Your task to perform on an android device: turn pop-ups off in chrome Image 0: 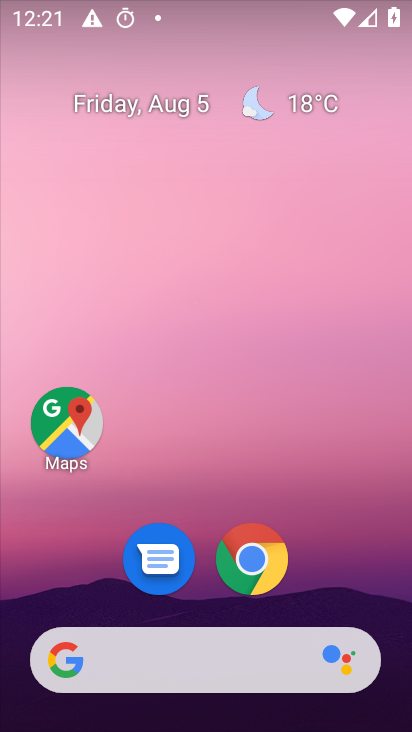
Step 0: click (266, 569)
Your task to perform on an android device: turn pop-ups off in chrome Image 1: 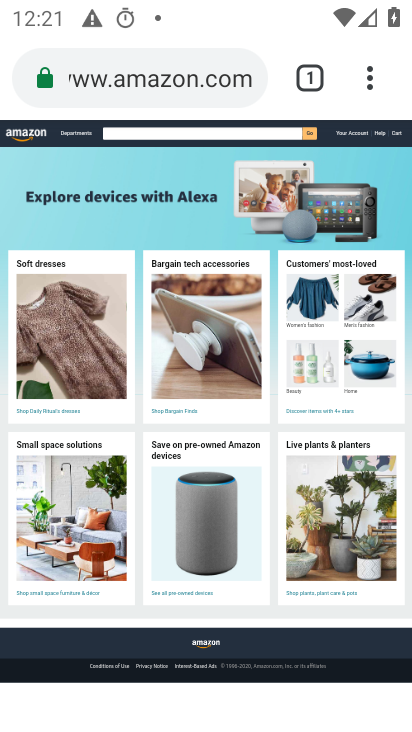
Step 1: click (376, 62)
Your task to perform on an android device: turn pop-ups off in chrome Image 2: 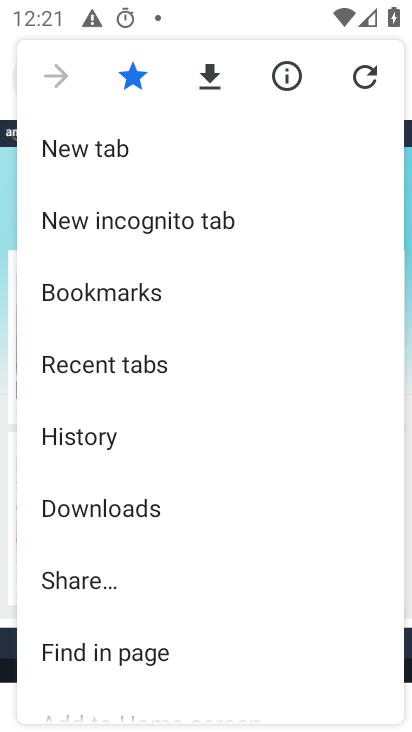
Step 2: drag from (363, 663) to (398, 382)
Your task to perform on an android device: turn pop-ups off in chrome Image 3: 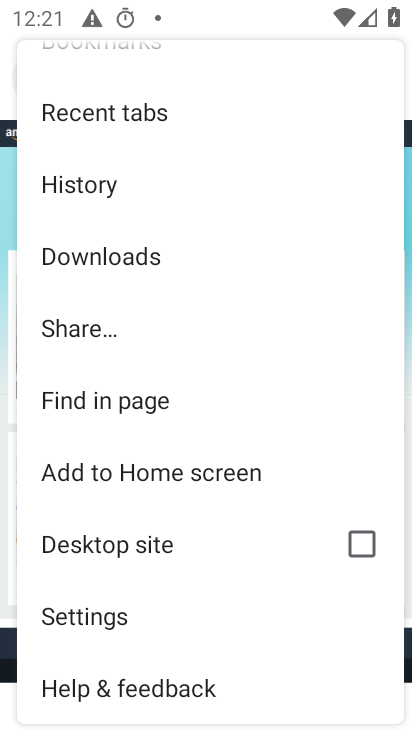
Step 3: click (113, 623)
Your task to perform on an android device: turn pop-ups off in chrome Image 4: 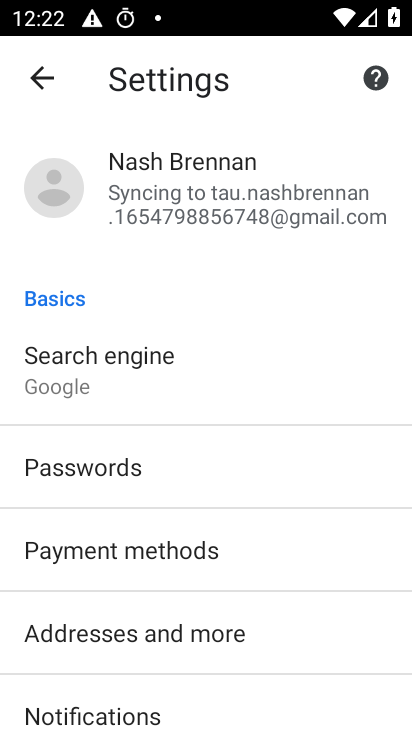
Step 4: drag from (327, 659) to (388, 413)
Your task to perform on an android device: turn pop-ups off in chrome Image 5: 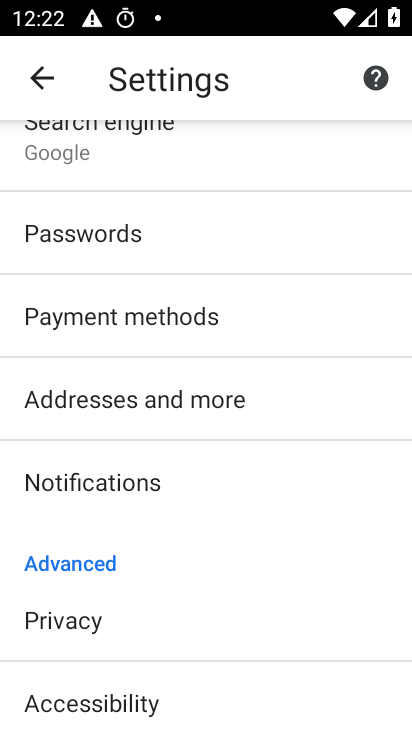
Step 5: drag from (334, 645) to (384, 379)
Your task to perform on an android device: turn pop-ups off in chrome Image 6: 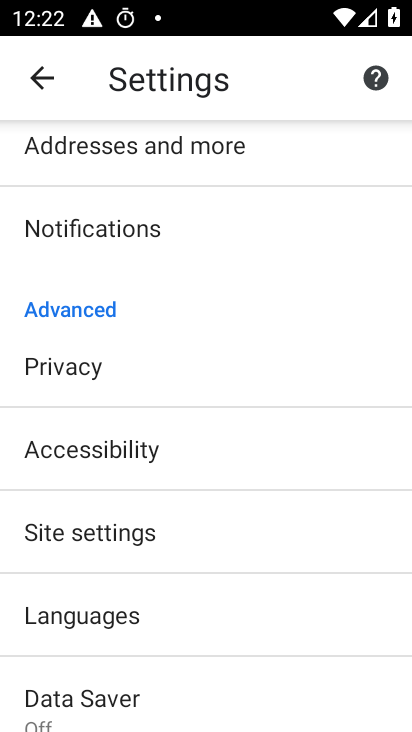
Step 6: click (99, 525)
Your task to perform on an android device: turn pop-ups off in chrome Image 7: 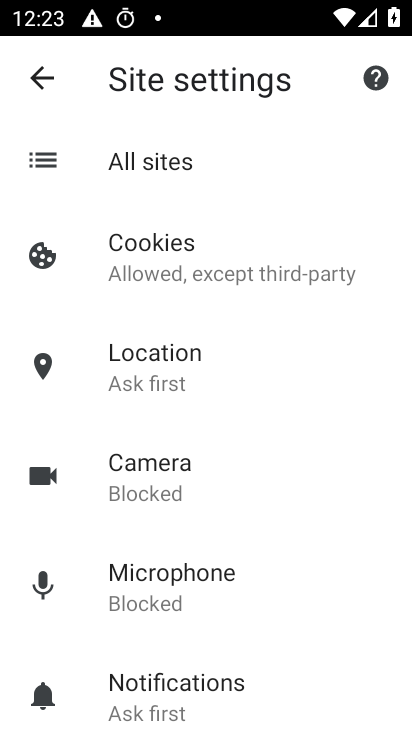
Step 7: drag from (329, 603) to (232, 243)
Your task to perform on an android device: turn pop-ups off in chrome Image 8: 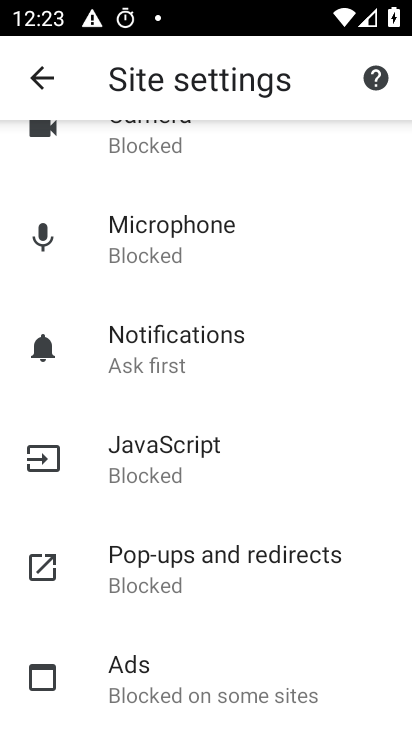
Step 8: click (227, 560)
Your task to perform on an android device: turn pop-ups off in chrome Image 9: 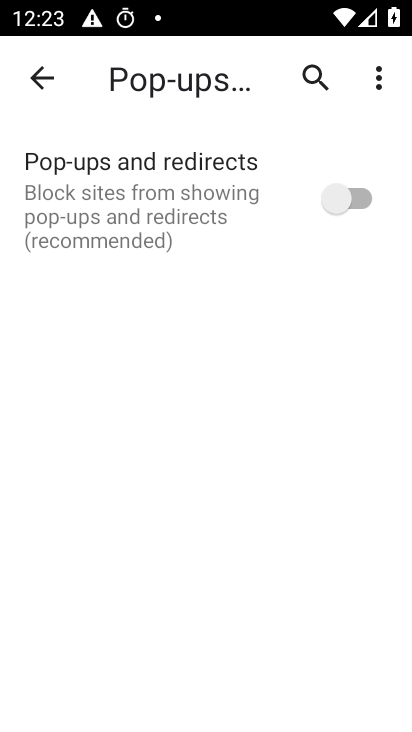
Step 9: click (358, 188)
Your task to perform on an android device: turn pop-ups off in chrome Image 10: 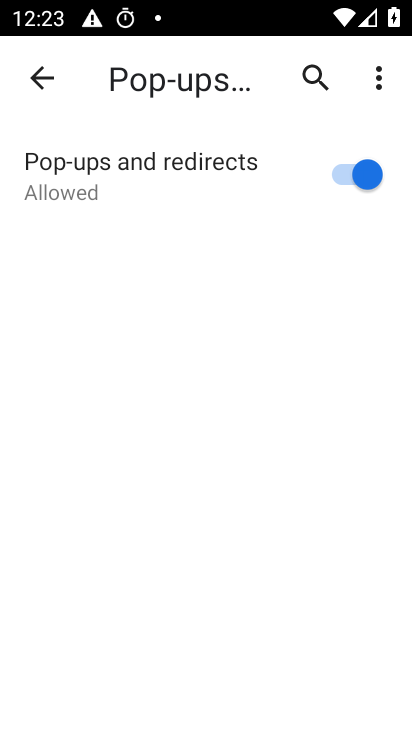
Step 10: task complete